Your task to perform on an android device: set default search engine in the chrome app Image 0: 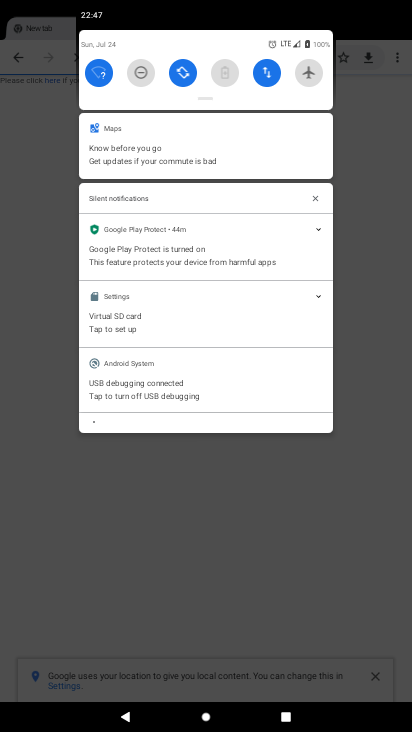
Step 0: drag from (240, 667) to (309, 156)
Your task to perform on an android device: set default search engine in the chrome app Image 1: 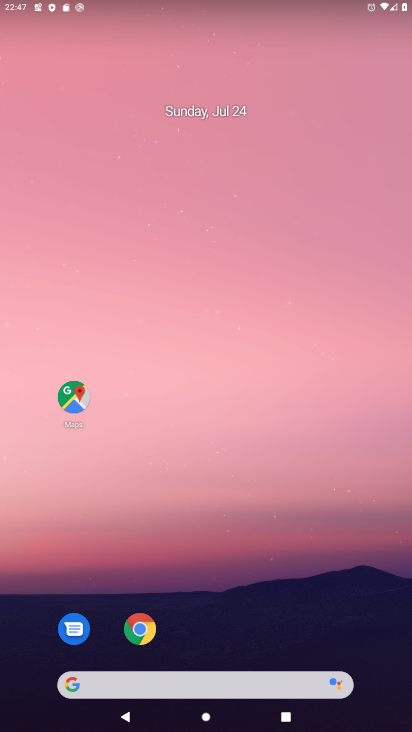
Step 1: drag from (207, 651) to (228, 176)
Your task to perform on an android device: set default search engine in the chrome app Image 2: 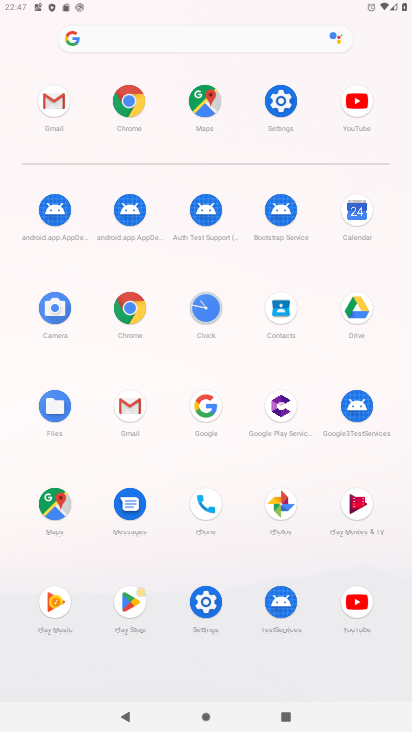
Step 2: click (125, 291)
Your task to perform on an android device: set default search engine in the chrome app Image 3: 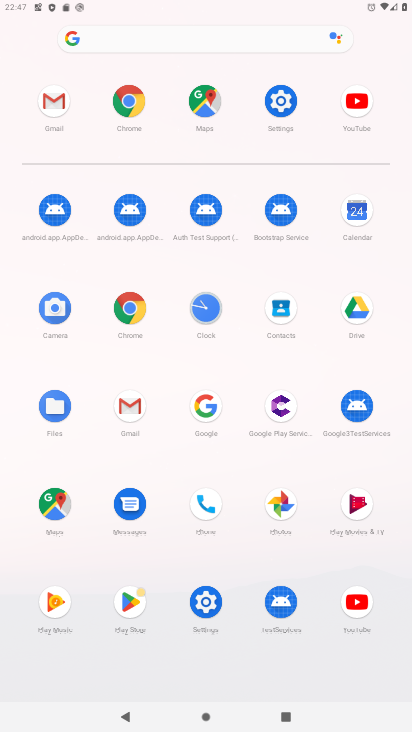
Step 3: click (125, 291)
Your task to perform on an android device: set default search engine in the chrome app Image 4: 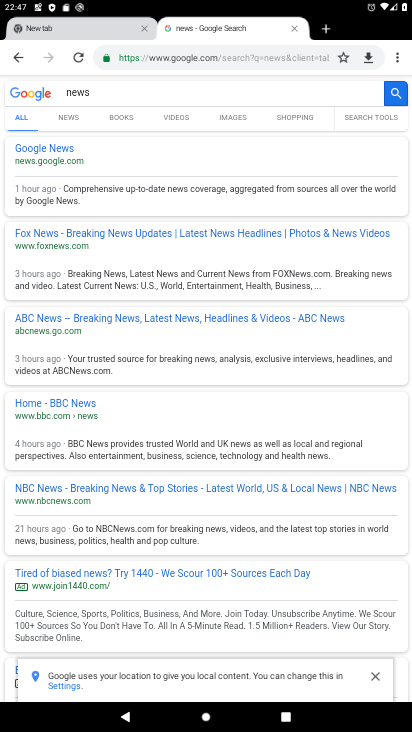
Step 4: drag from (233, 612) to (251, 328)
Your task to perform on an android device: set default search engine in the chrome app Image 5: 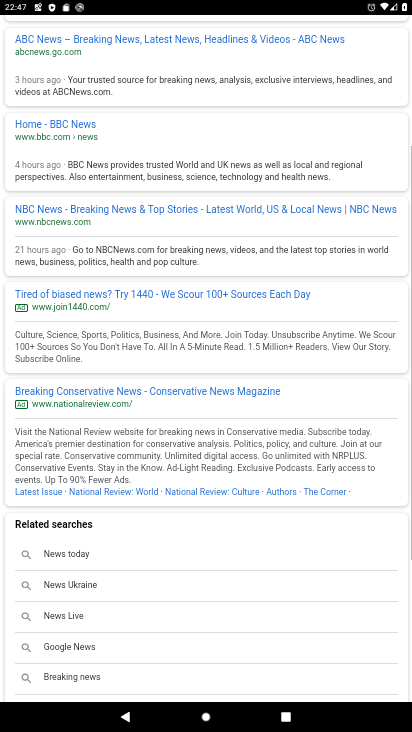
Step 5: drag from (262, 217) to (328, 666)
Your task to perform on an android device: set default search engine in the chrome app Image 6: 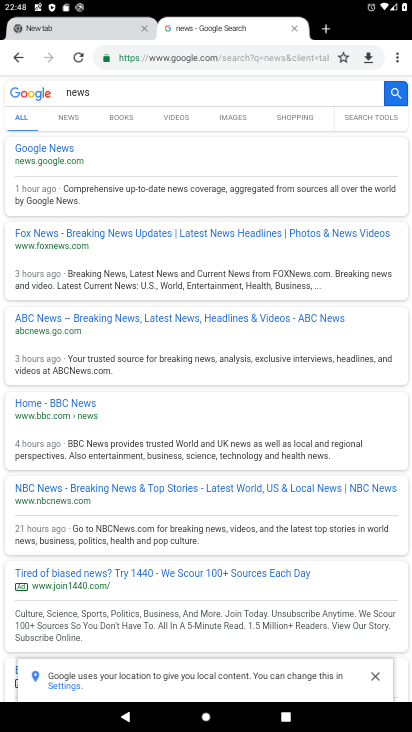
Step 6: drag from (397, 57) to (289, 353)
Your task to perform on an android device: set default search engine in the chrome app Image 7: 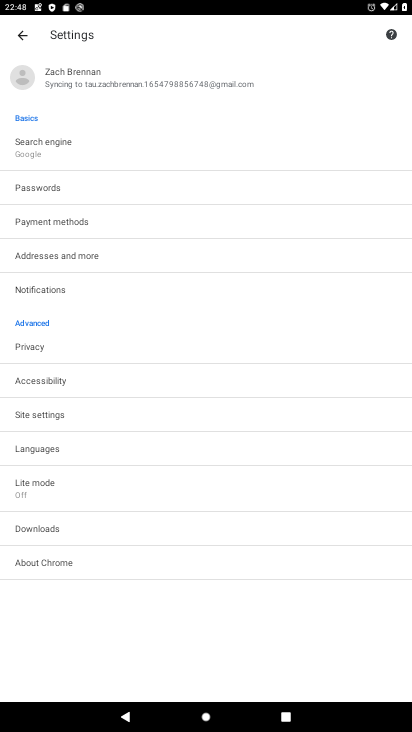
Step 7: click (99, 141)
Your task to perform on an android device: set default search engine in the chrome app Image 8: 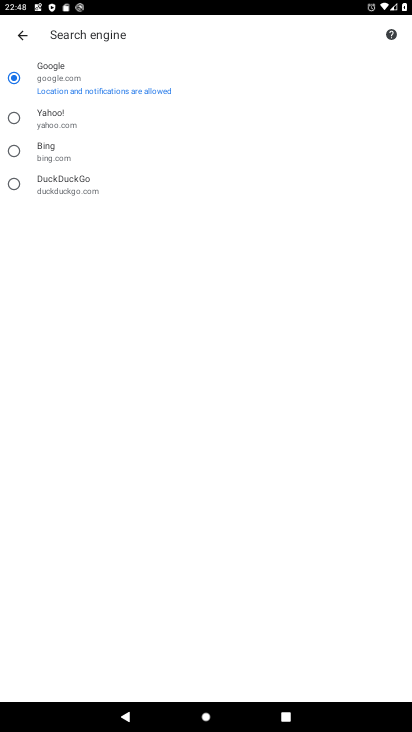
Step 8: task complete